Your task to perform on an android device: install app "Google Keep" Image 0: 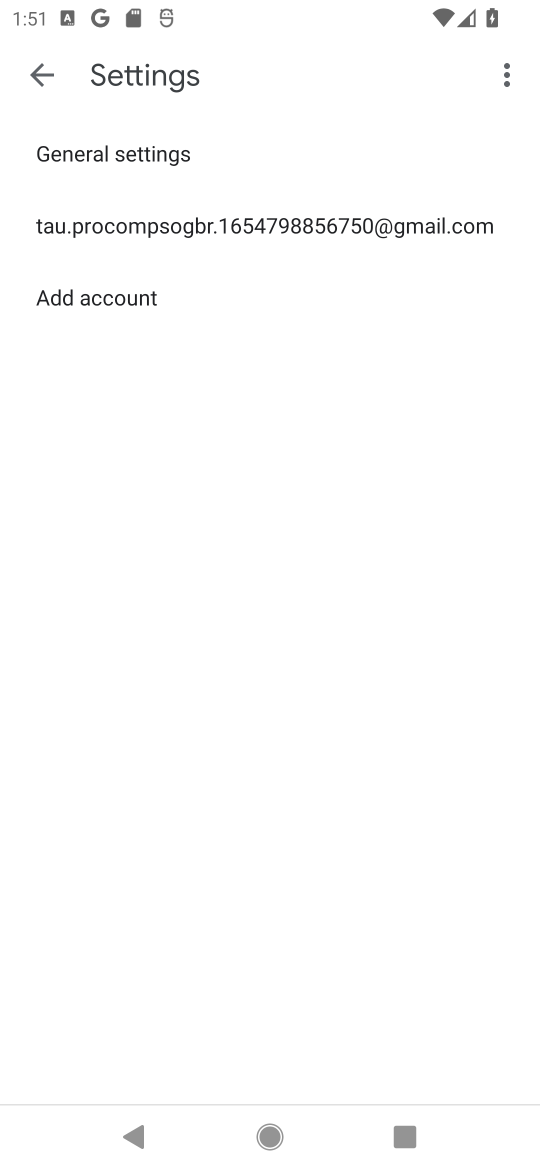
Step 0: press back button
Your task to perform on an android device: install app "Google Keep" Image 1: 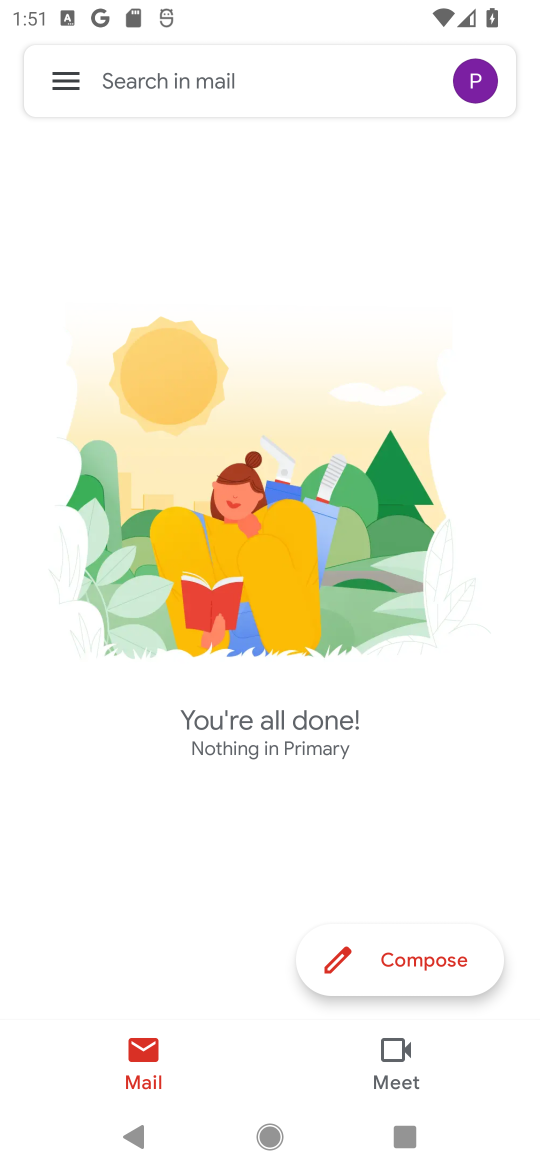
Step 1: press back button
Your task to perform on an android device: install app "Google Keep" Image 2: 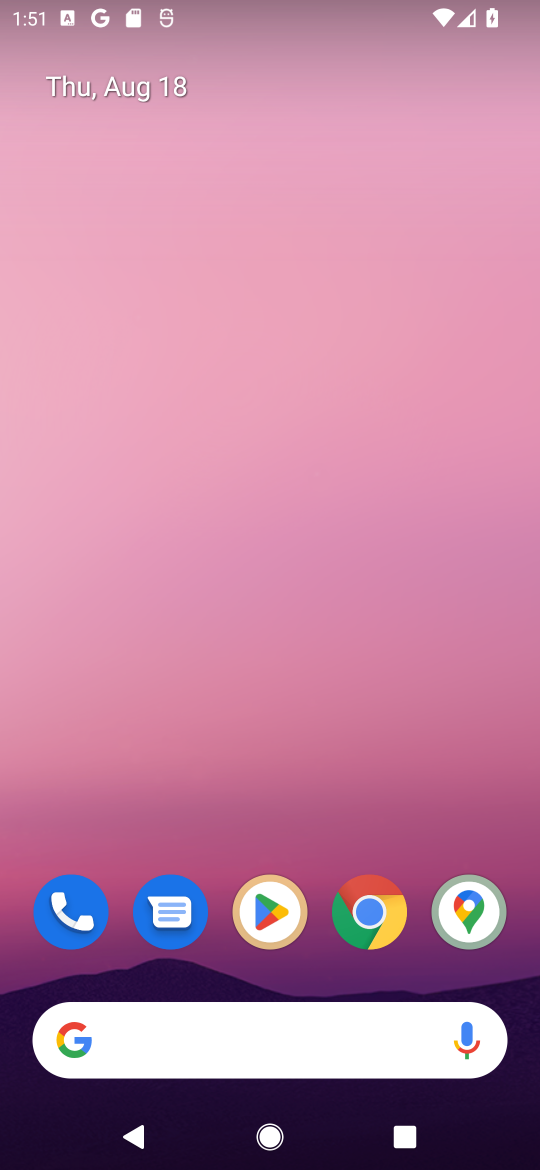
Step 2: click (268, 904)
Your task to perform on an android device: install app "Google Keep" Image 3: 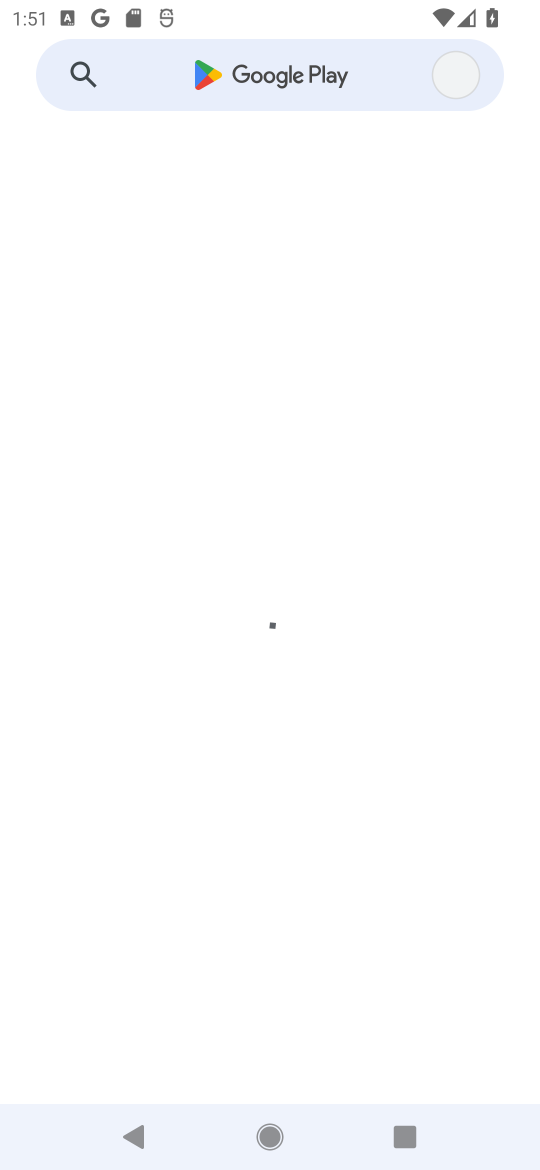
Step 3: click (259, 61)
Your task to perform on an android device: install app "Google Keep" Image 4: 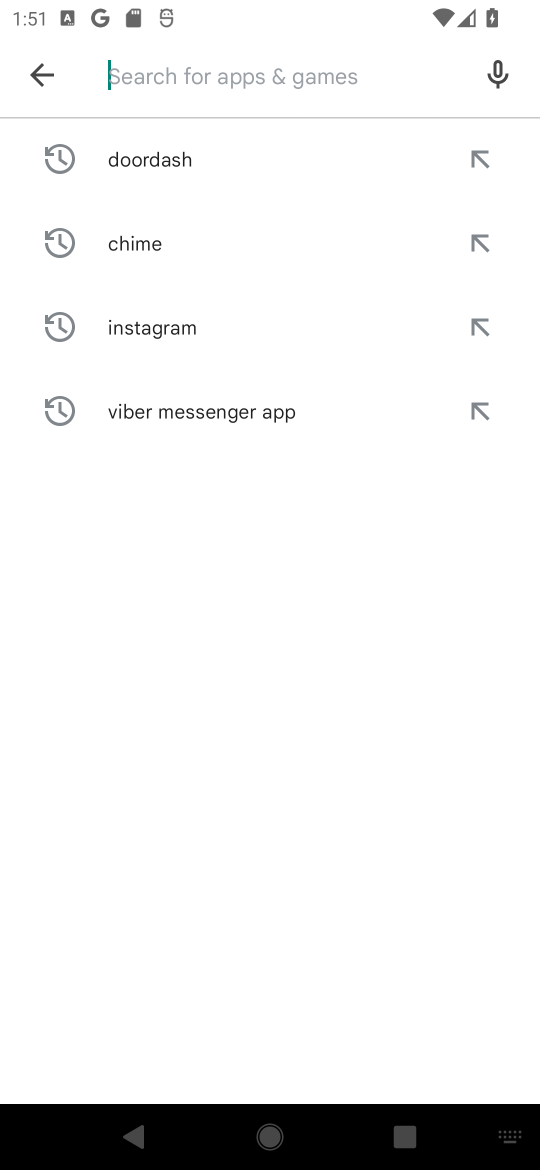
Step 4: type "google keep"
Your task to perform on an android device: install app "Google Keep" Image 5: 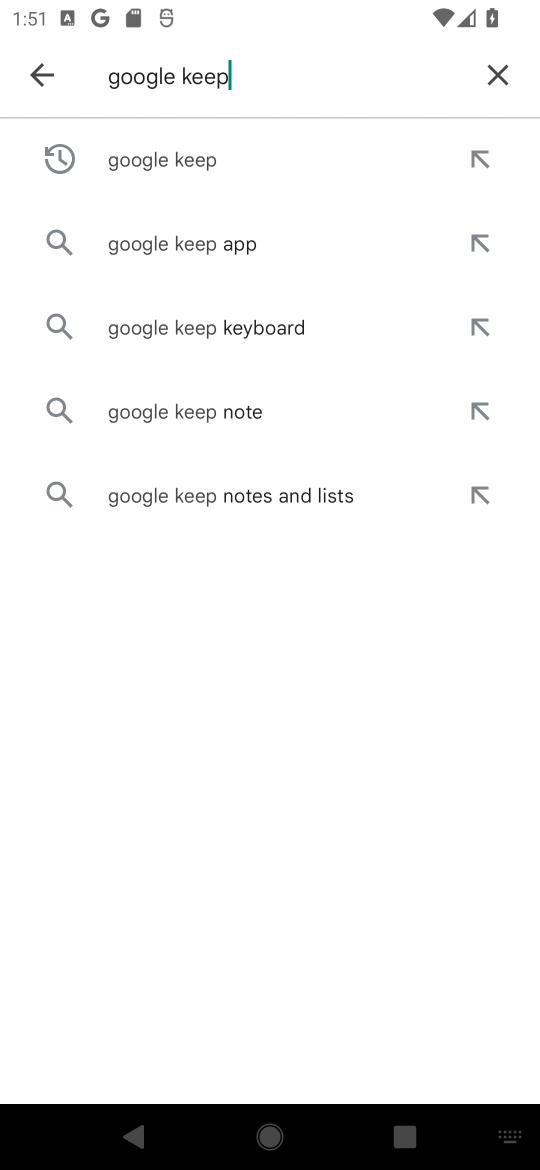
Step 5: click (231, 149)
Your task to perform on an android device: install app "Google Keep" Image 6: 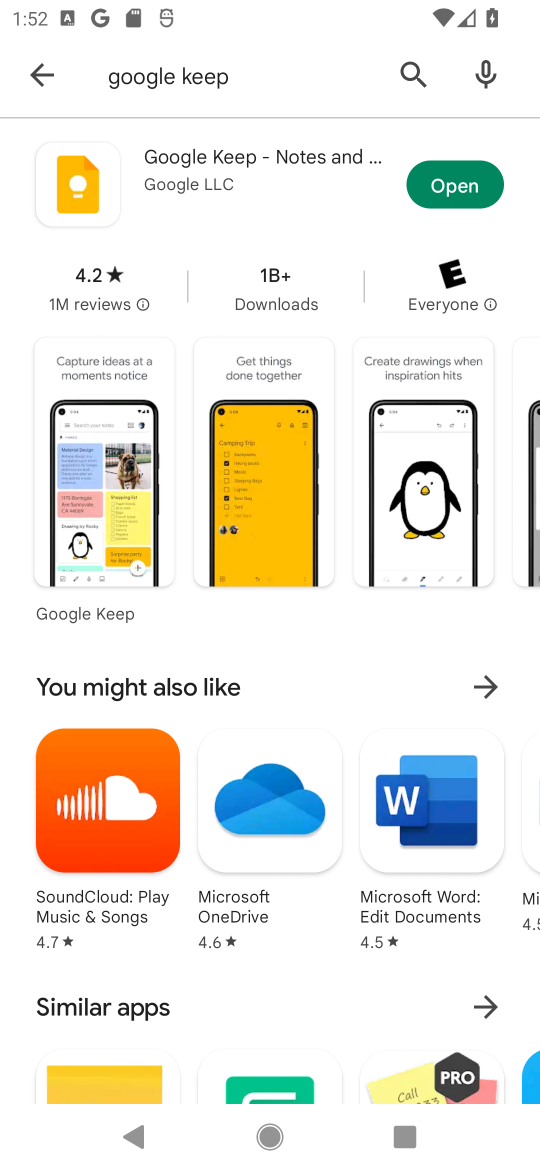
Step 6: task complete